Your task to perform on an android device: Open Youtube and go to "Your channel" Image 0: 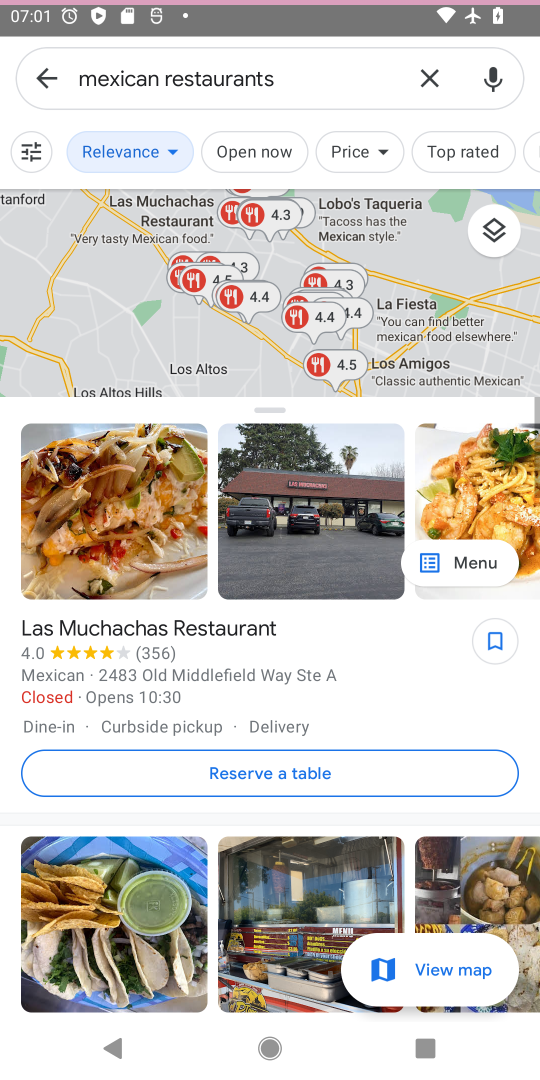
Step 0: press home button
Your task to perform on an android device: Open Youtube and go to "Your channel" Image 1: 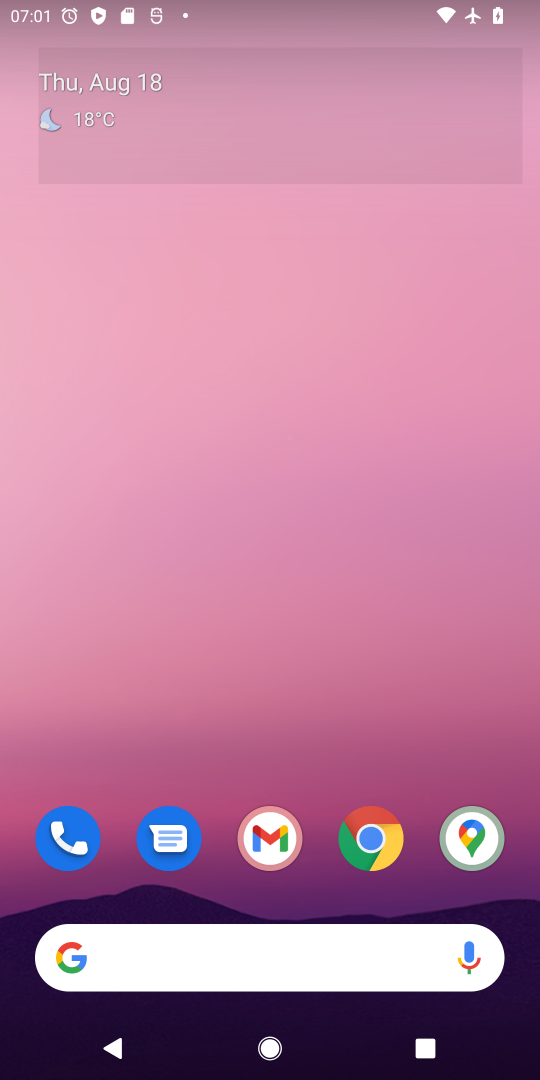
Step 1: drag from (313, 804) to (284, 104)
Your task to perform on an android device: Open Youtube and go to "Your channel" Image 2: 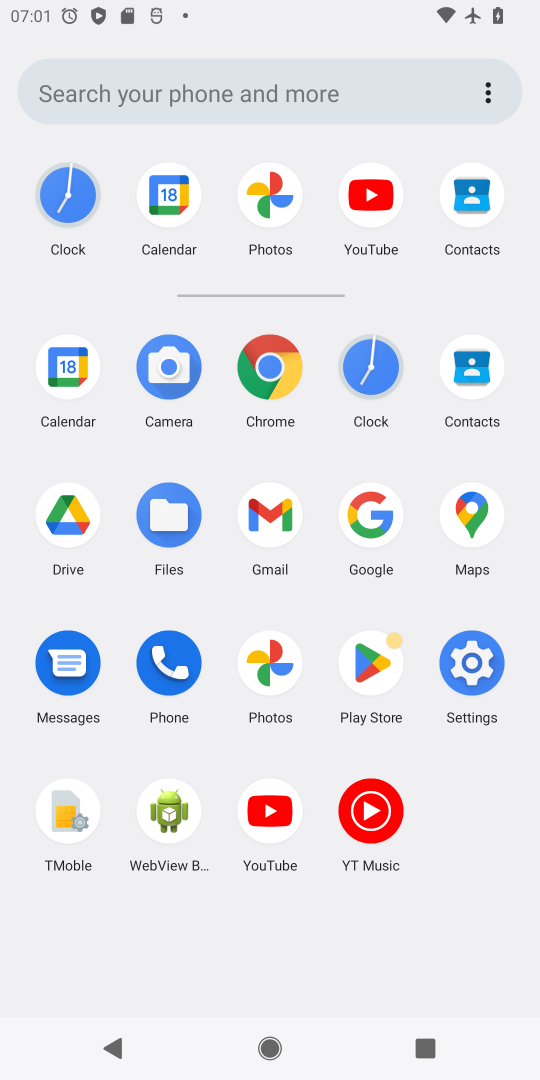
Step 2: click (280, 817)
Your task to perform on an android device: Open Youtube and go to "Your channel" Image 3: 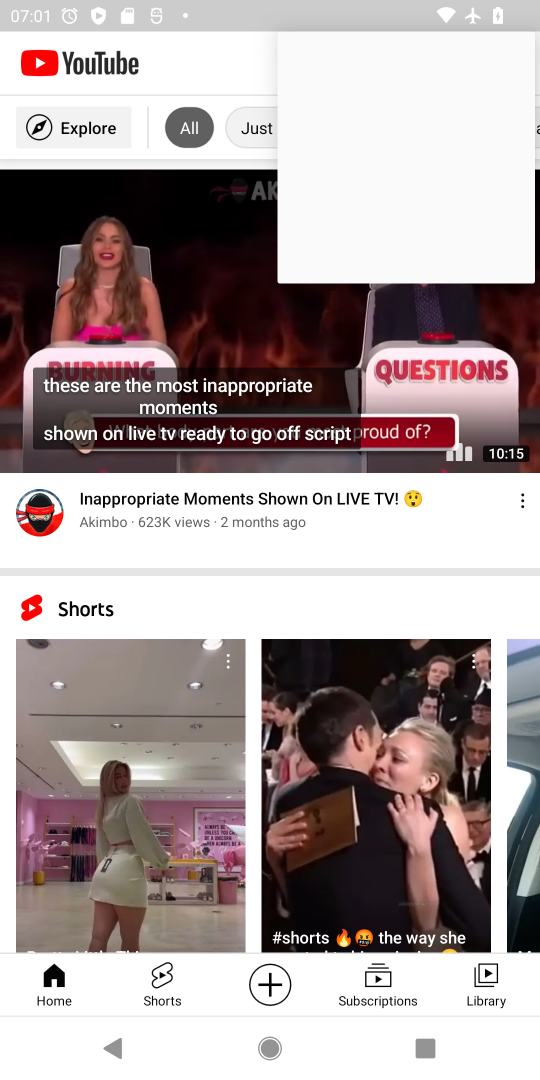
Step 3: click (215, 56)
Your task to perform on an android device: Open Youtube and go to "Your channel" Image 4: 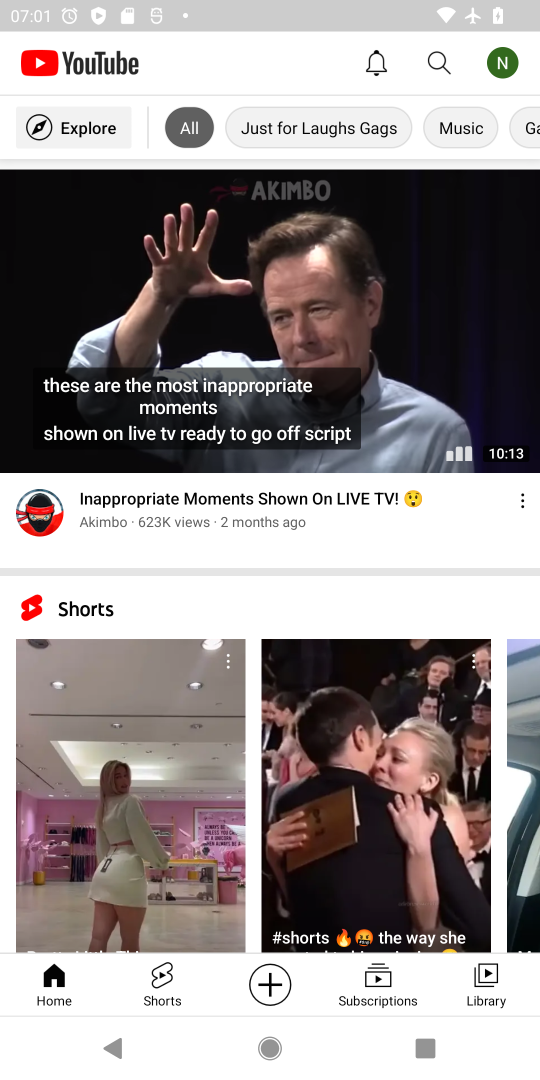
Step 4: click (516, 70)
Your task to perform on an android device: Open Youtube and go to "Your channel" Image 5: 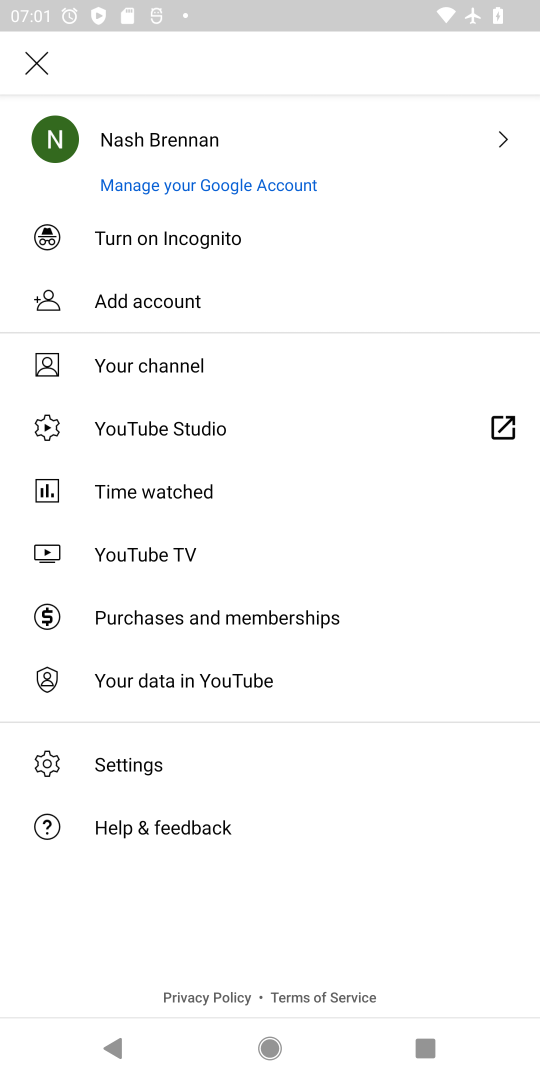
Step 5: click (129, 365)
Your task to perform on an android device: Open Youtube and go to "Your channel" Image 6: 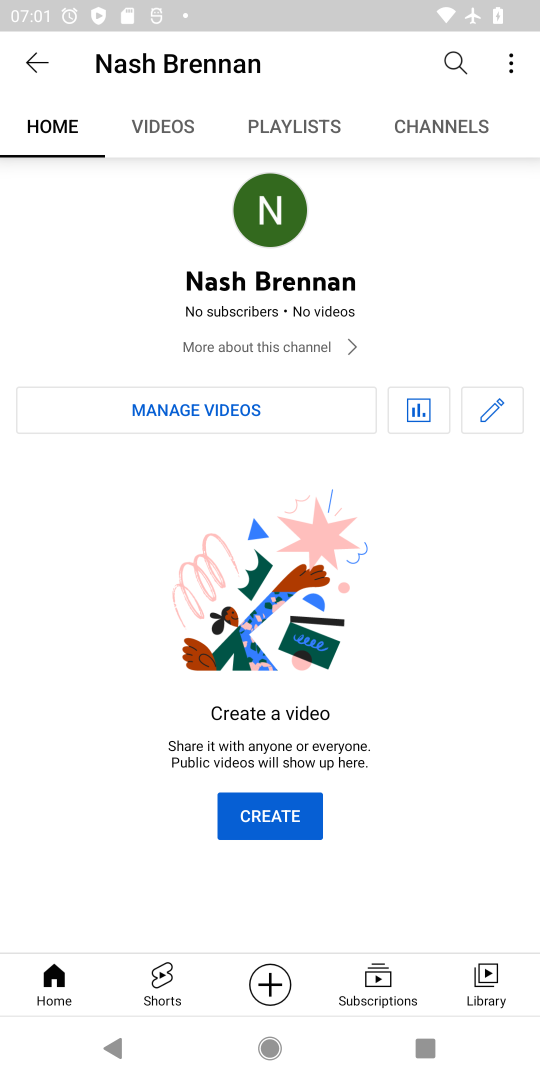
Step 6: task complete